Your task to perform on an android device: delete location history Image 0: 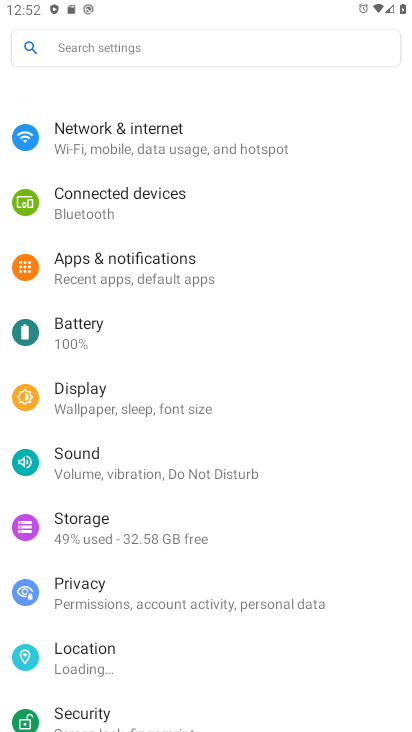
Step 0: press home button
Your task to perform on an android device: delete location history Image 1: 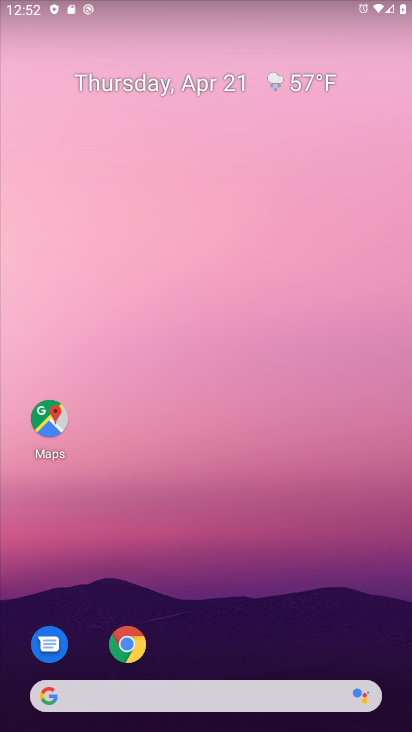
Step 1: drag from (207, 660) to (194, 46)
Your task to perform on an android device: delete location history Image 2: 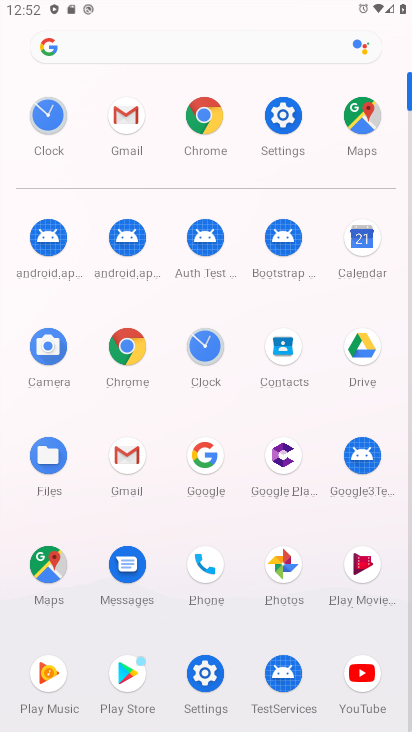
Step 2: click (52, 555)
Your task to perform on an android device: delete location history Image 3: 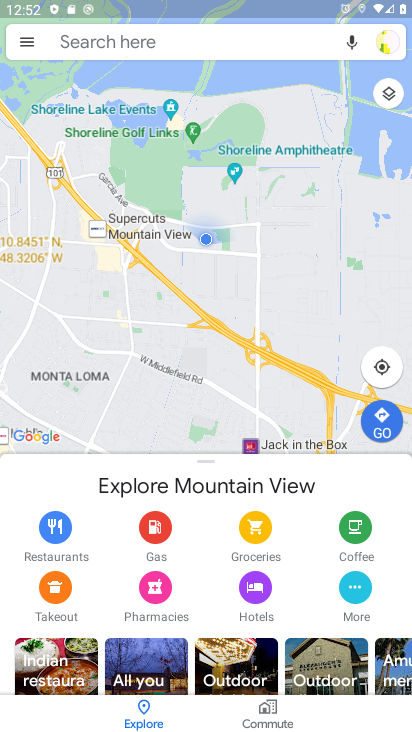
Step 3: drag from (31, 37) to (45, 163)
Your task to perform on an android device: delete location history Image 4: 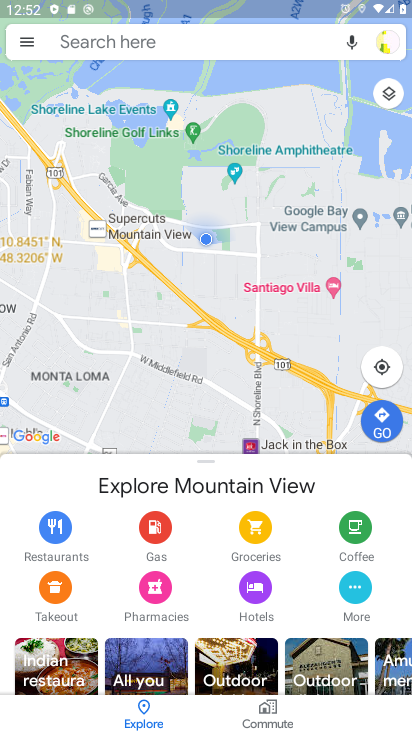
Step 4: click (23, 46)
Your task to perform on an android device: delete location history Image 5: 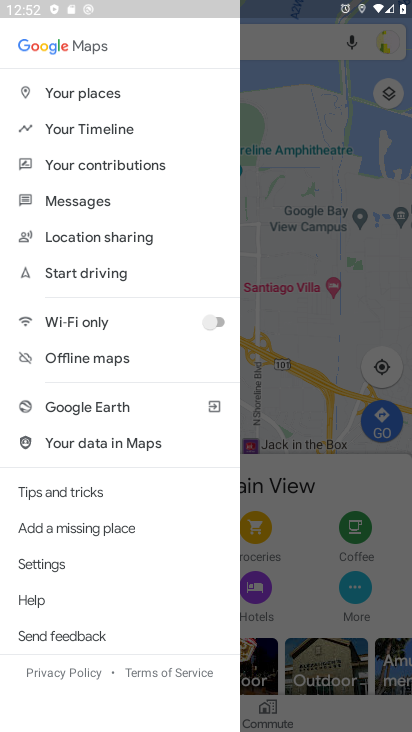
Step 5: click (68, 131)
Your task to perform on an android device: delete location history Image 6: 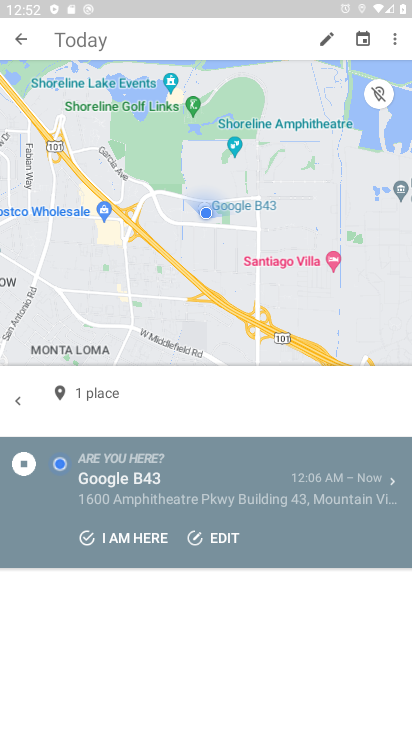
Step 6: click (392, 31)
Your task to perform on an android device: delete location history Image 7: 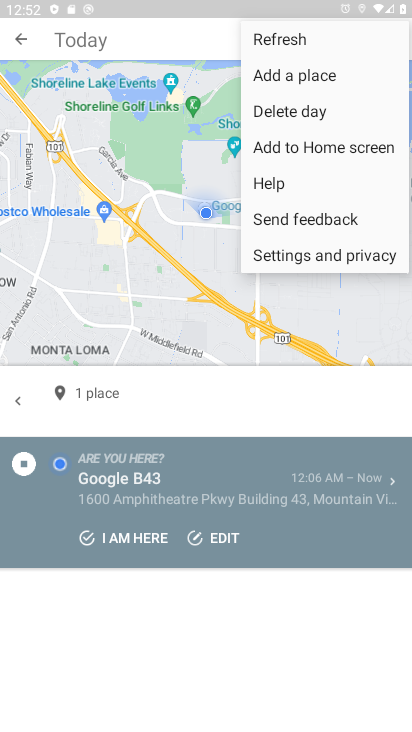
Step 7: click (286, 244)
Your task to perform on an android device: delete location history Image 8: 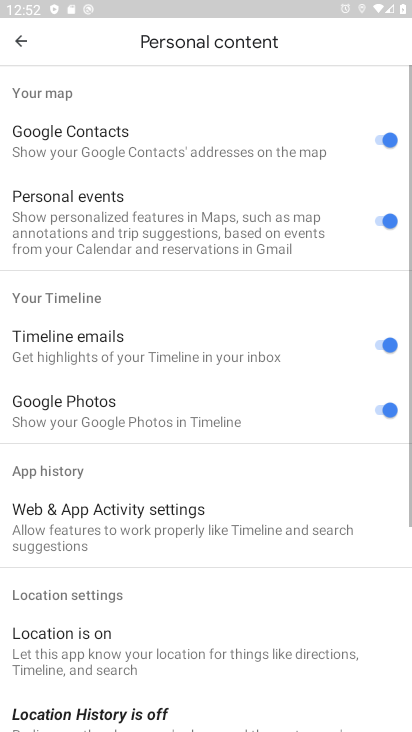
Step 8: drag from (152, 545) to (119, 71)
Your task to perform on an android device: delete location history Image 9: 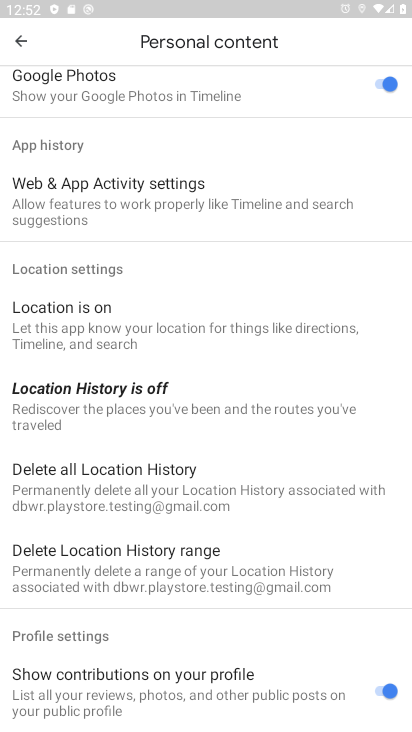
Step 9: click (132, 499)
Your task to perform on an android device: delete location history Image 10: 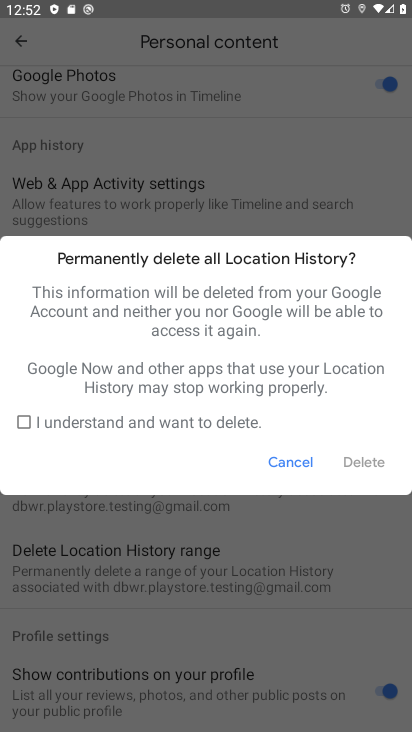
Step 10: click (33, 419)
Your task to perform on an android device: delete location history Image 11: 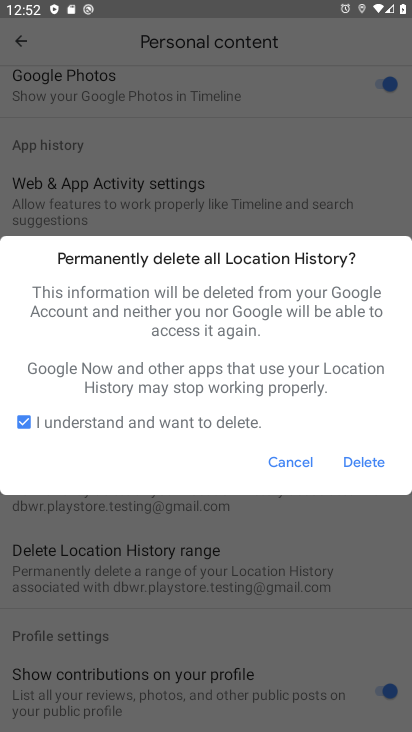
Step 11: click (365, 457)
Your task to perform on an android device: delete location history Image 12: 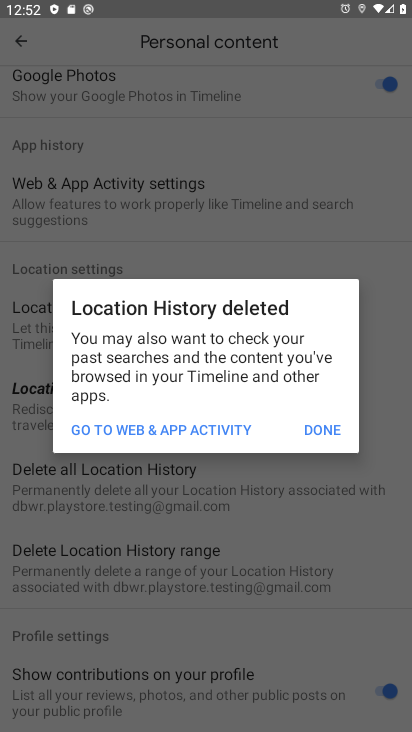
Step 12: click (309, 431)
Your task to perform on an android device: delete location history Image 13: 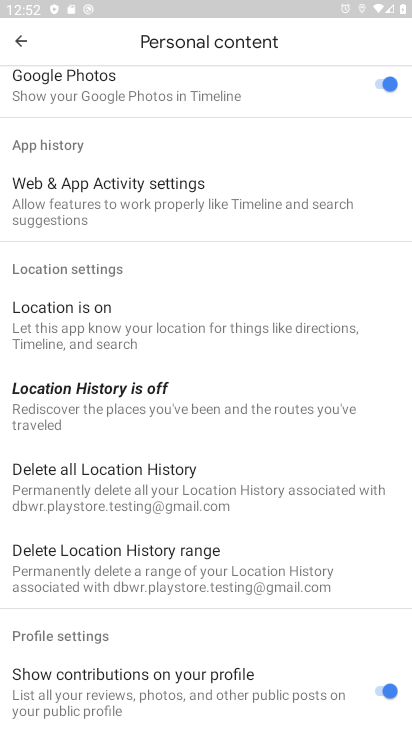
Step 13: task complete